Your task to perform on an android device: delete location history Image 0: 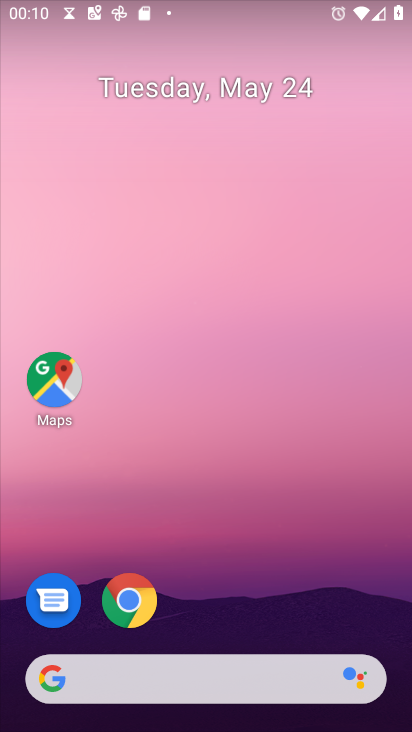
Step 0: drag from (218, 720) to (217, 229)
Your task to perform on an android device: delete location history Image 1: 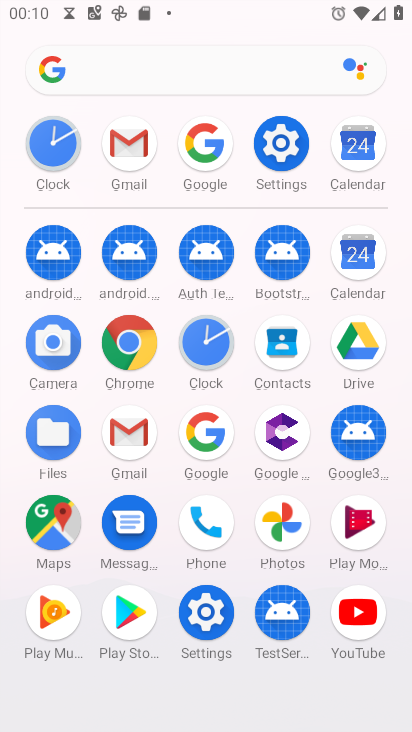
Step 1: click (46, 525)
Your task to perform on an android device: delete location history Image 2: 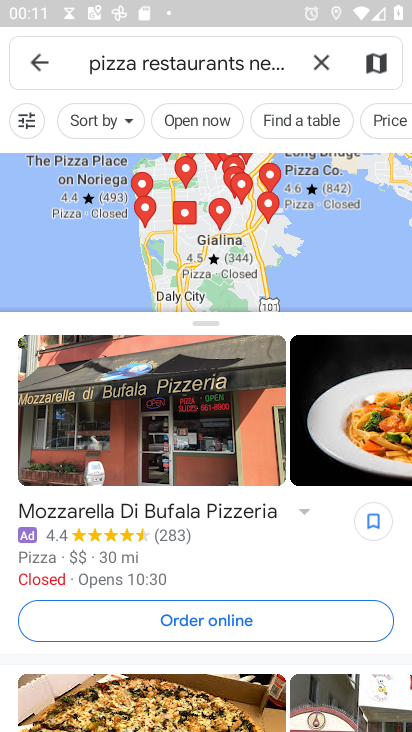
Step 2: click (39, 64)
Your task to perform on an android device: delete location history Image 3: 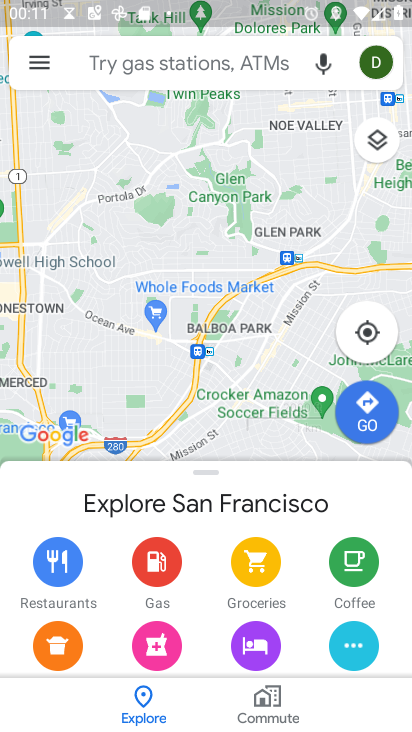
Step 3: click (39, 65)
Your task to perform on an android device: delete location history Image 4: 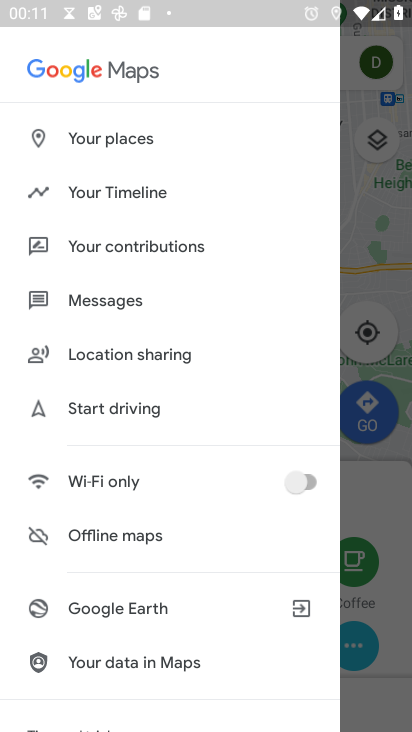
Step 4: drag from (145, 645) to (147, 303)
Your task to perform on an android device: delete location history Image 5: 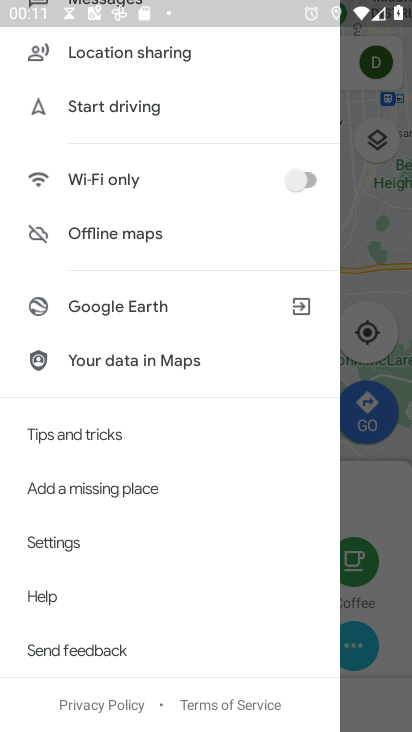
Step 5: drag from (170, 133) to (195, 445)
Your task to perform on an android device: delete location history Image 6: 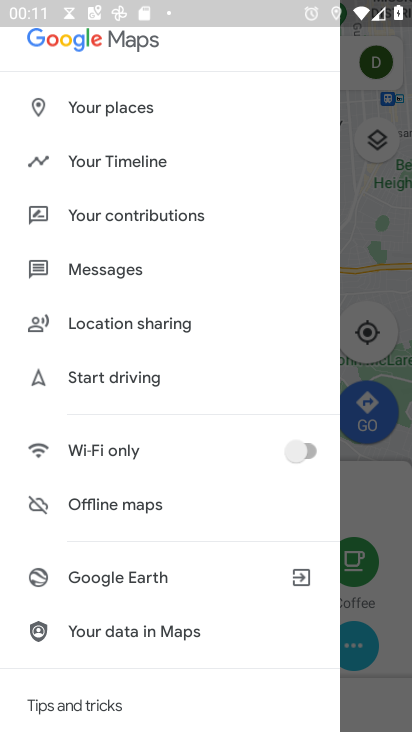
Step 6: click (132, 155)
Your task to perform on an android device: delete location history Image 7: 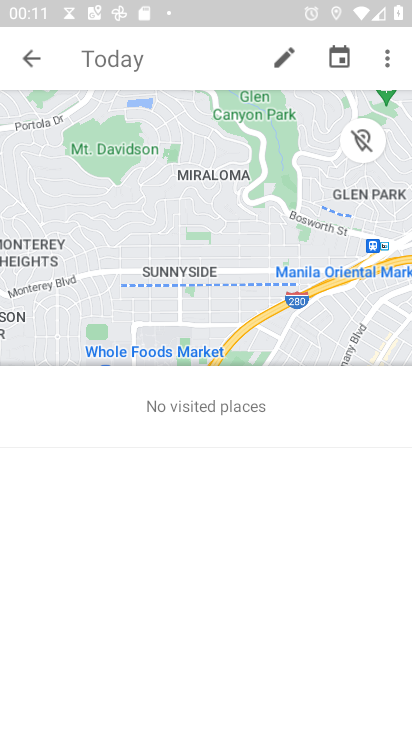
Step 7: click (386, 63)
Your task to perform on an android device: delete location history Image 8: 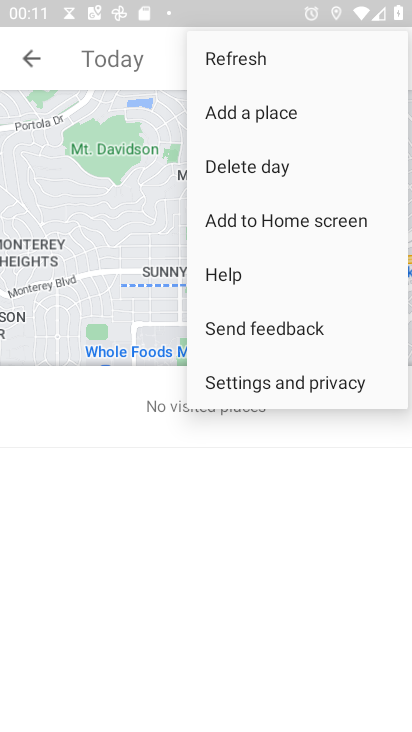
Step 8: click (256, 381)
Your task to perform on an android device: delete location history Image 9: 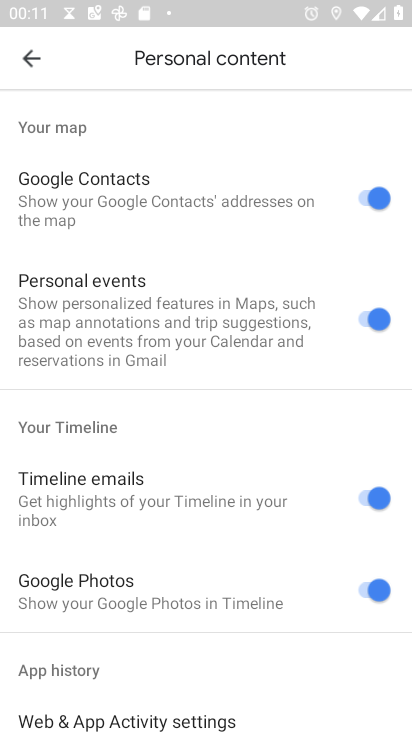
Step 9: drag from (182, 678) to (177, 257)
Your task to perform on an android device: delete location history Image 10: 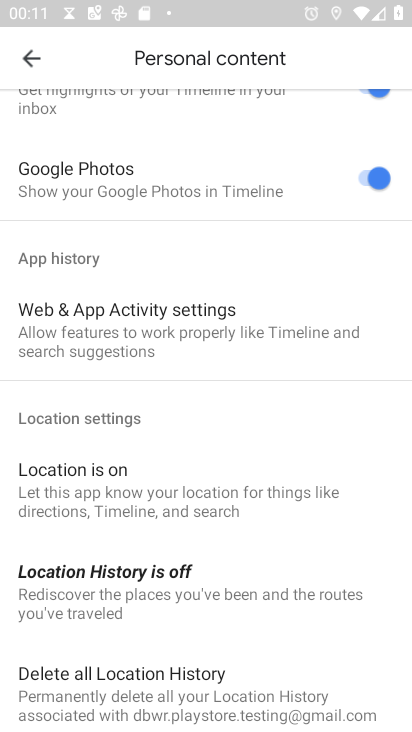
Step 10: click (73, 686)
Your task to perform on an android device: delete location history Image 11: 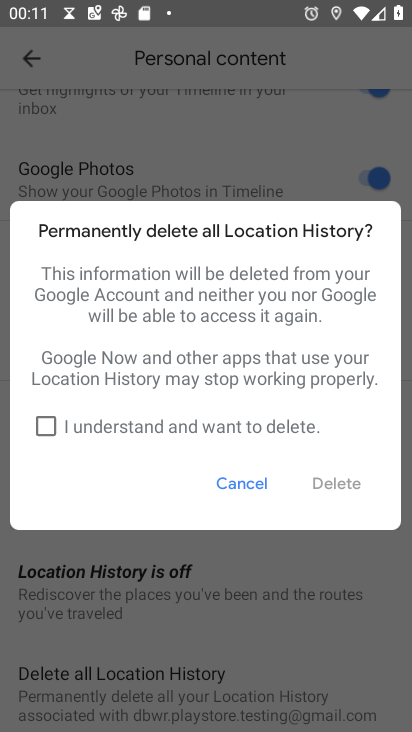
Step 11: click (51, 422)
Your task to perform on an android device: delete location history Image 12: 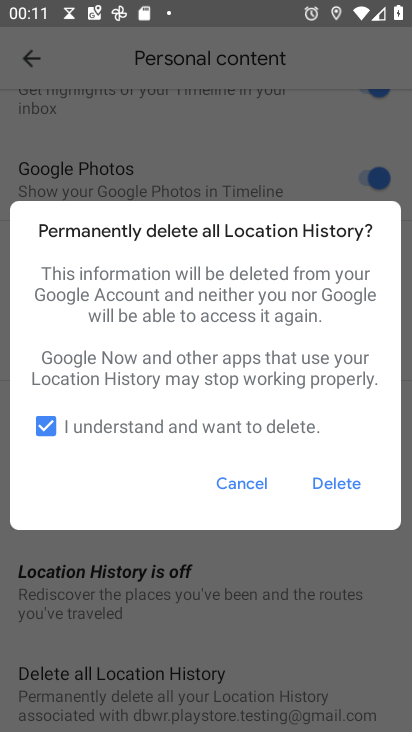
Step 12: click (343, 481)
Your task to perform on an android device: delete location history Image 13: 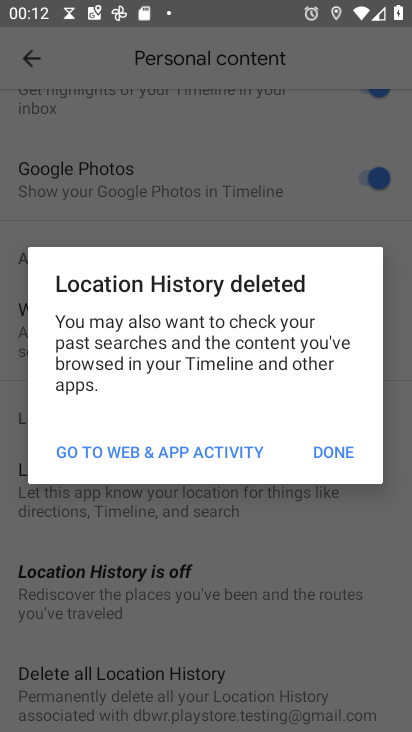
Step 13: click (331, 444)
Your task to perform on an android device: delete location history Image 14: 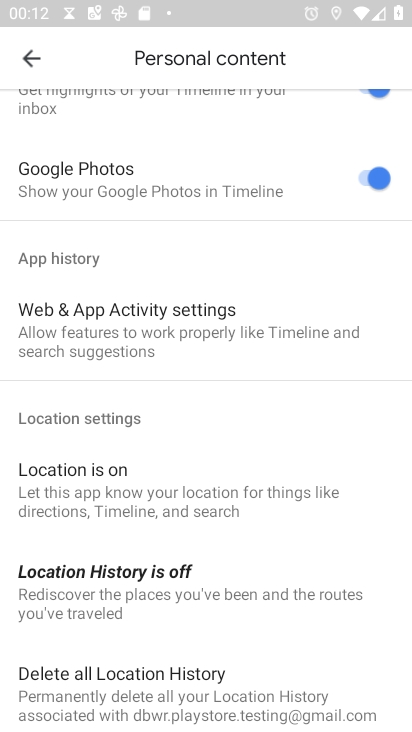
Step 14: task complete